Your task to perform on an android device: check google app version Image 0: 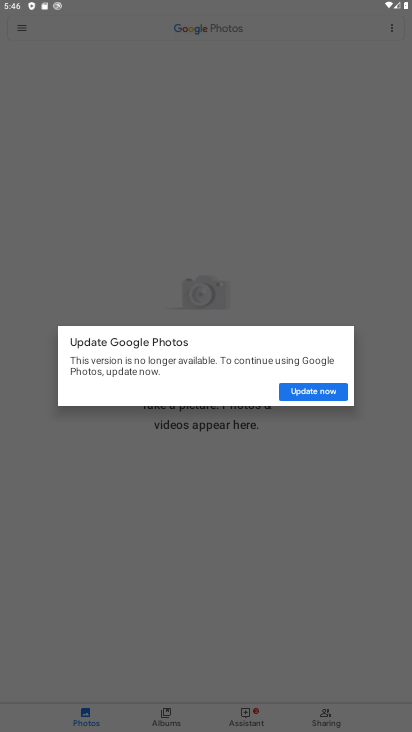
Step 0: click (196, 513)
Your task to perform on an android device: check google app version Image 1: 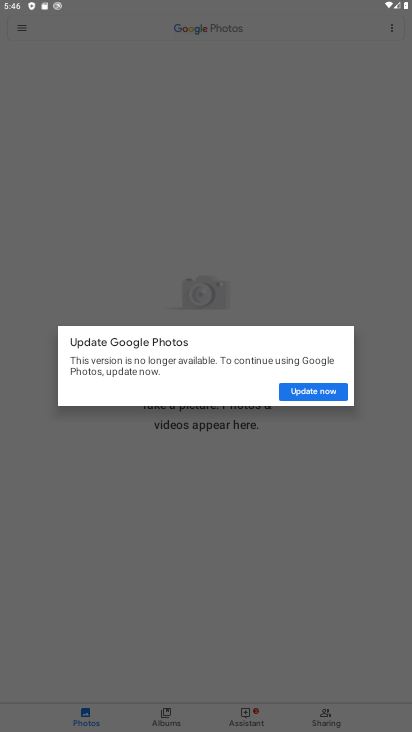
Step 1: press home button
Your task to perform on an android device: check google app version Image 2: 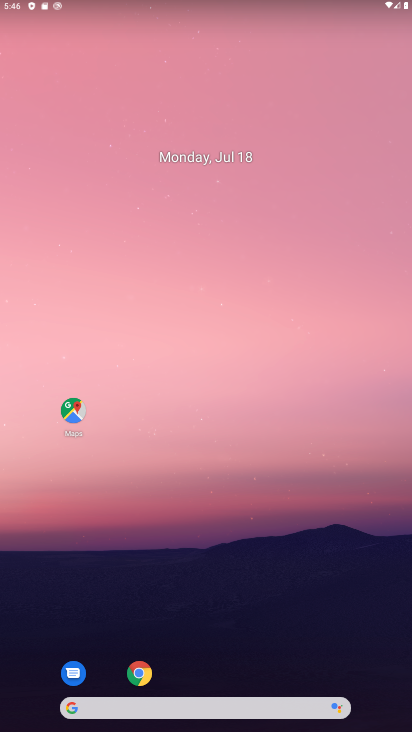
Step 2: drag from (267, 620) to (311, 219)
Your task to perform on an android device: check google app version Image 3: 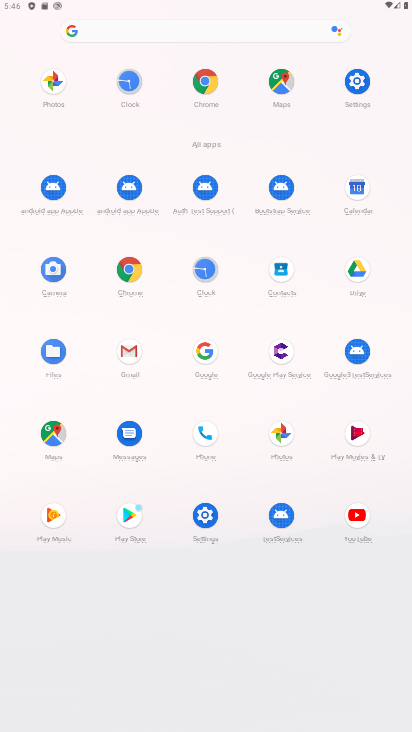
Step 3: click (204, 349)
Your task to perform on an android device: check google app version Image 4: 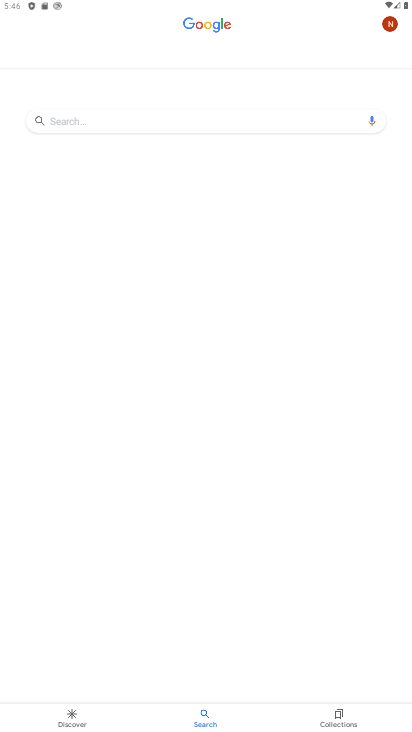
Step 4: click (390, 26)
Your task to perform on an android device: check google app version Image 5: 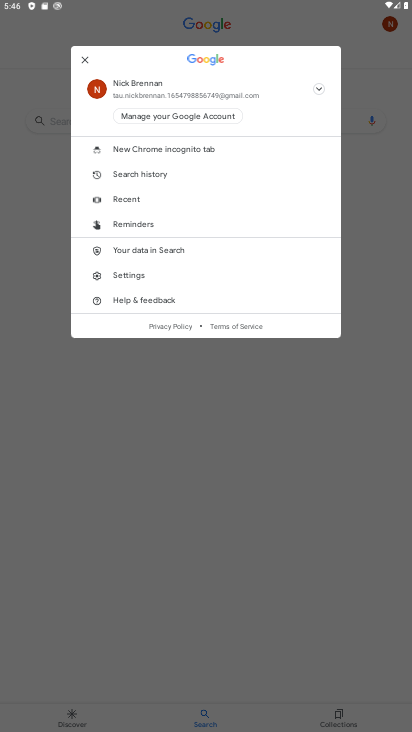
Step 5: click (184, 470)
Your task to perform on an android device: check google app version Image 6: 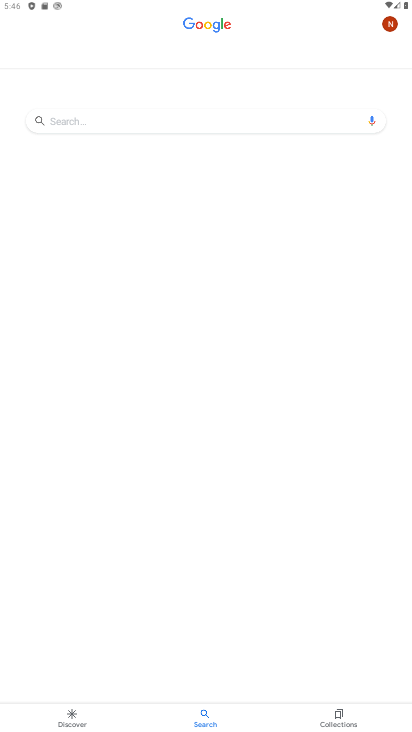
Step 6: click (395, 22)
Your task to perform on an android device: check google app version Image 7: 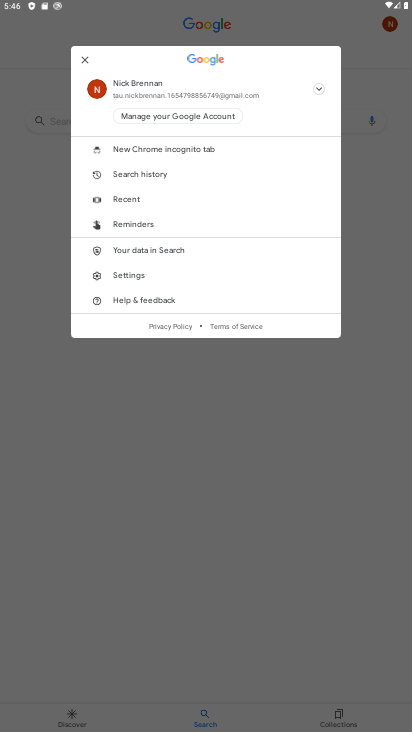
Step 7: click (105, 273)
Your task to perform on an android device: check google app version Image 8: 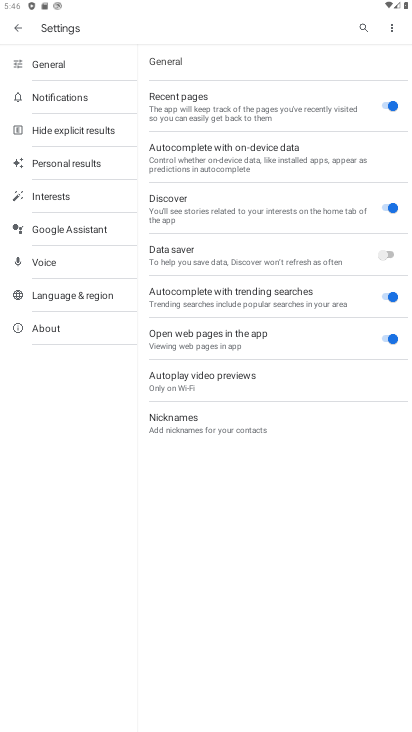
Step 8: click (50, 332)
Your task to perform on an android device: check google app version Image 9: 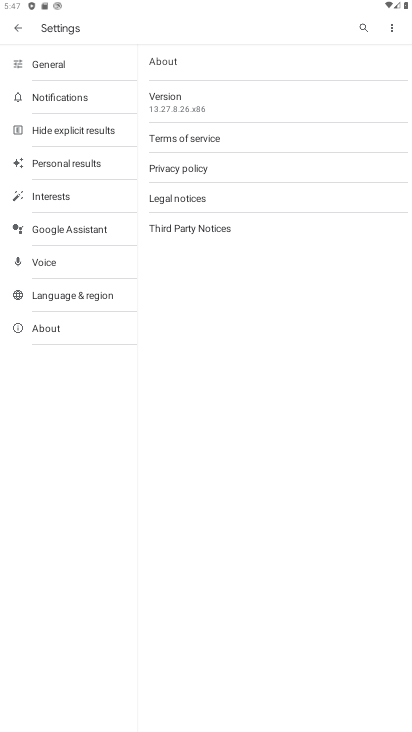
Step 9: task complete